Your task to perform on an android device: find which apps use the phone's location Image 0: 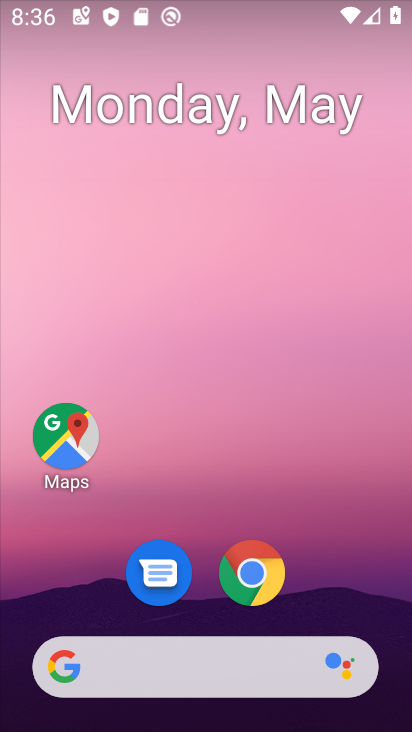
Step 0: drag from (343, 608) to (402, 77)
Your task to perform on an android device: find which apps use the phone's location Image 1: 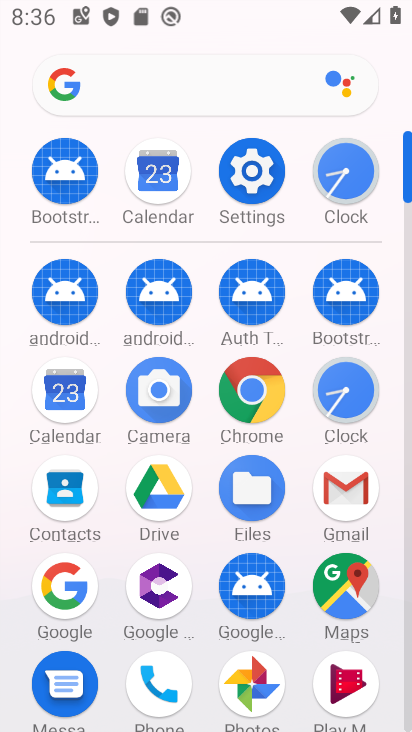
Step 1: click (271, 193)
Your task to perform on an android device: find which apps use the phone's location Image 2: 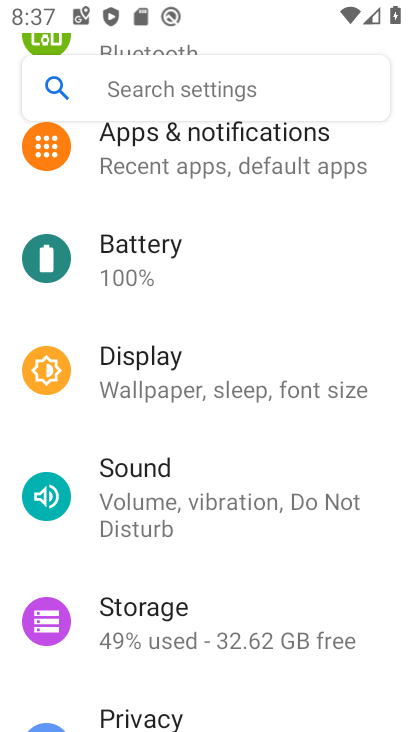
Step 2: drag from (245, 659) to (285, 206)
Your task to perform on an android device: find which apps use the phone's location Image 3: 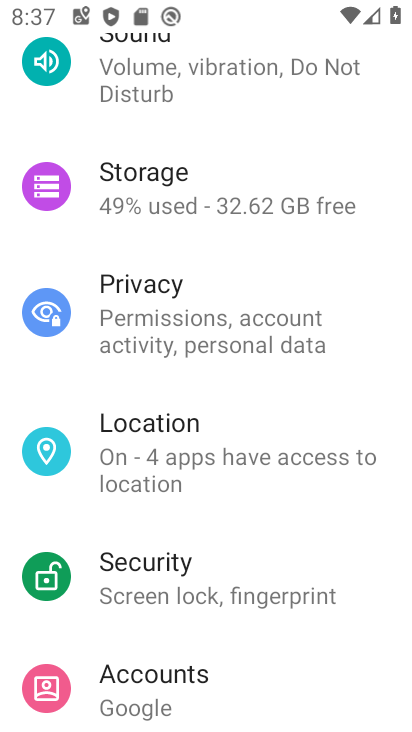
Step 3: drag from (212, 691) to (246, 499)
Your task to perform on an android device: find which apps use the phone's location Image 4: 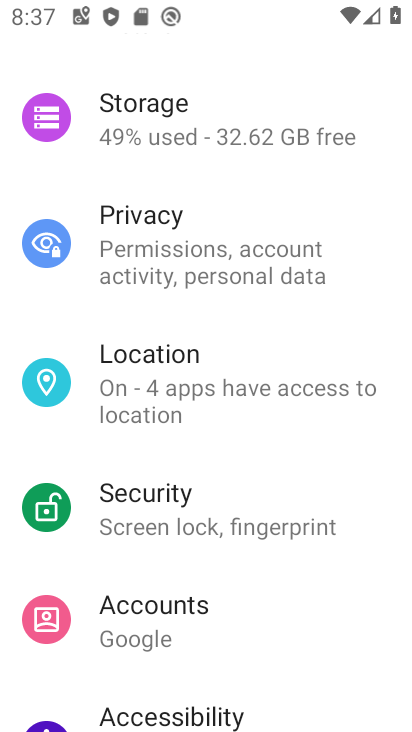
Step 4: click (283, 389)
Your task to perform on an android device: find which apps use the phone's location Image 5: 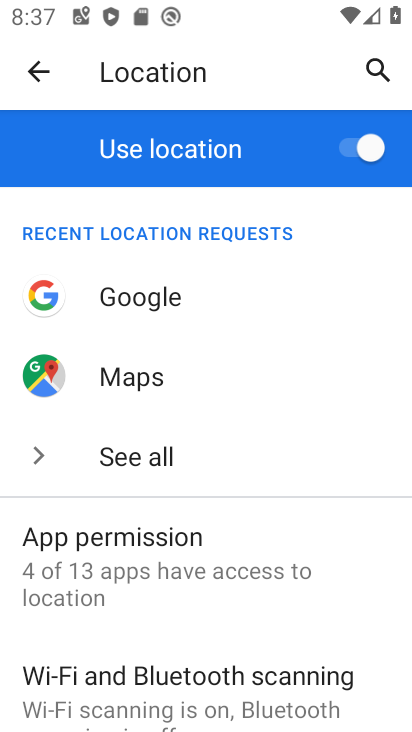
Step 5: task complete